Your task to perform on an android device: Go to Amazon Image 0: 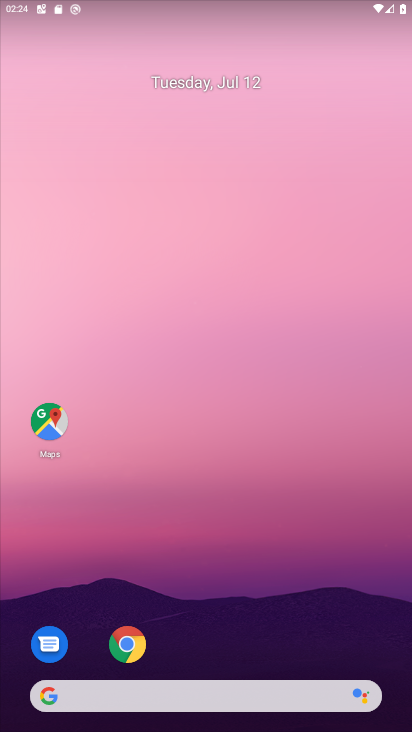
Step 0: click (132, 639)
Your task to perform on an android device: Go to Amazon Image 1: 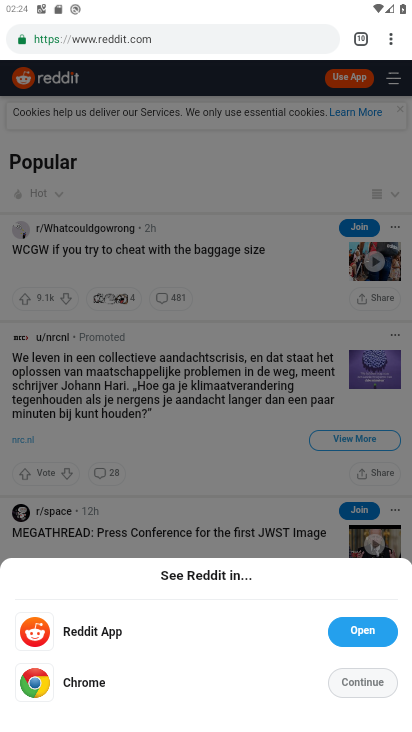
Step 1: click (349, 685)
Your task to perform on an android device: Go to Amazon Image 2: 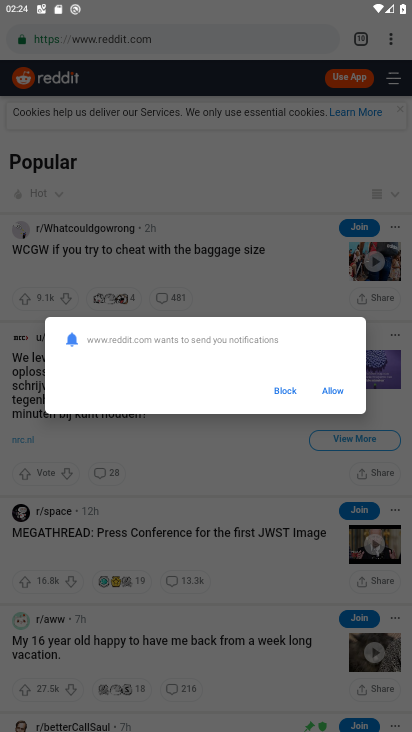
Step 2: click (331, 393)
Your task to perform on an android device: Go to Amazon Image 3: 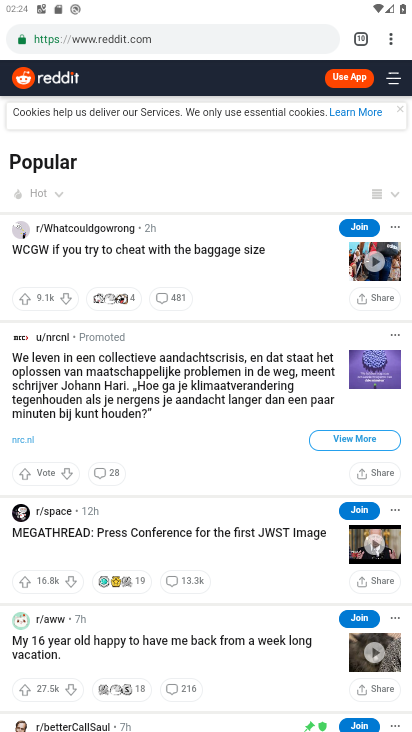
Step 3: click (352, 36)
Your task to perform on an android device: Go to Amazon Image 4: 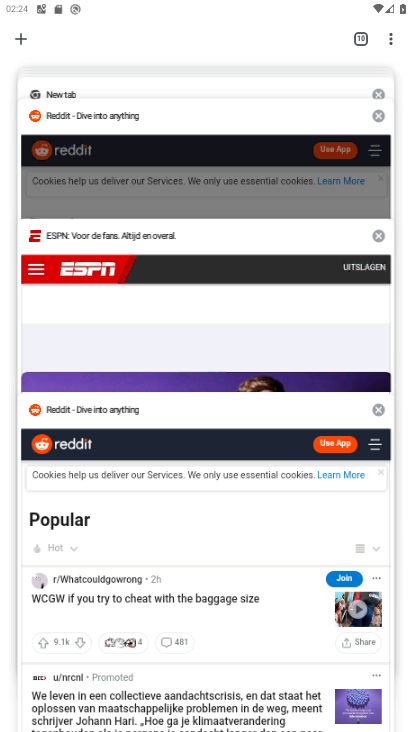
Step 4: click (15, 33)
Your task to perform on an android device: Go to Amazon Image 5: 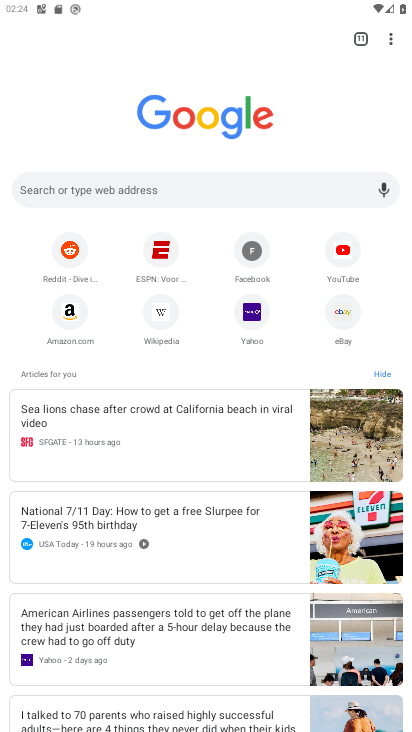
Step 5: click (74, 308)
Your task to perform on an android device: Go to Amazon Image 6: 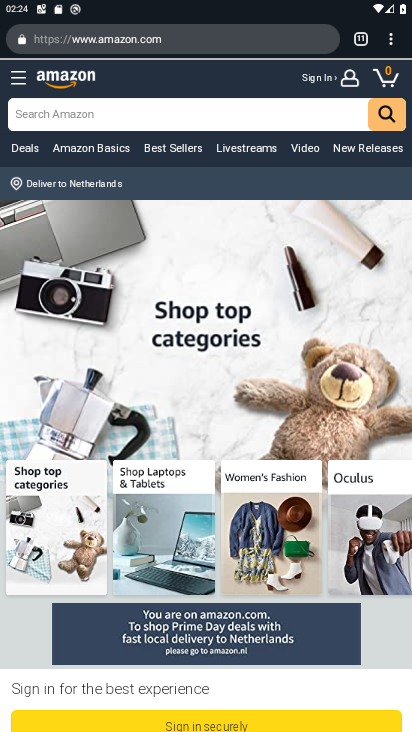
Step 6: task complete